Your task to perform on an android device: Do I have any events today? Image 0: 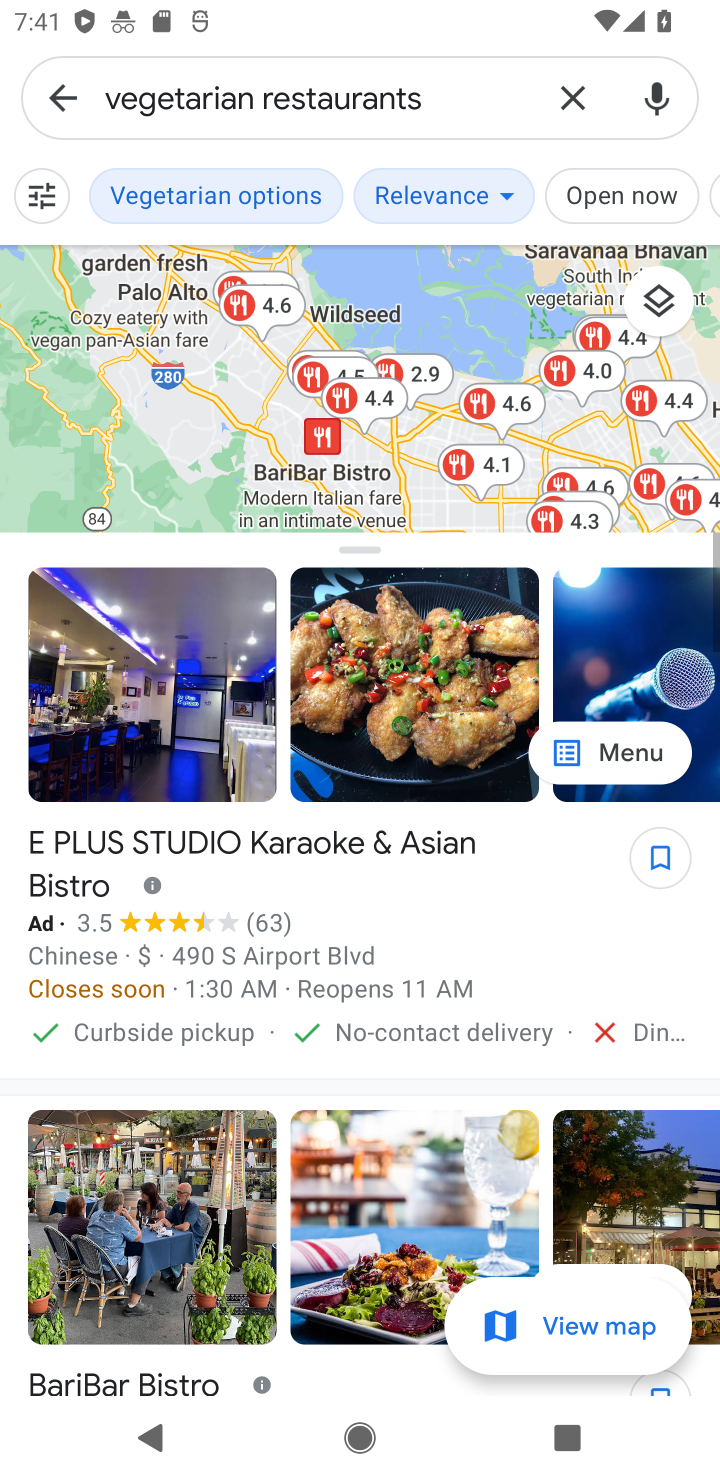
Step 0: press back button
Your task to perform on an android device: Do I have any events today? Image 1: 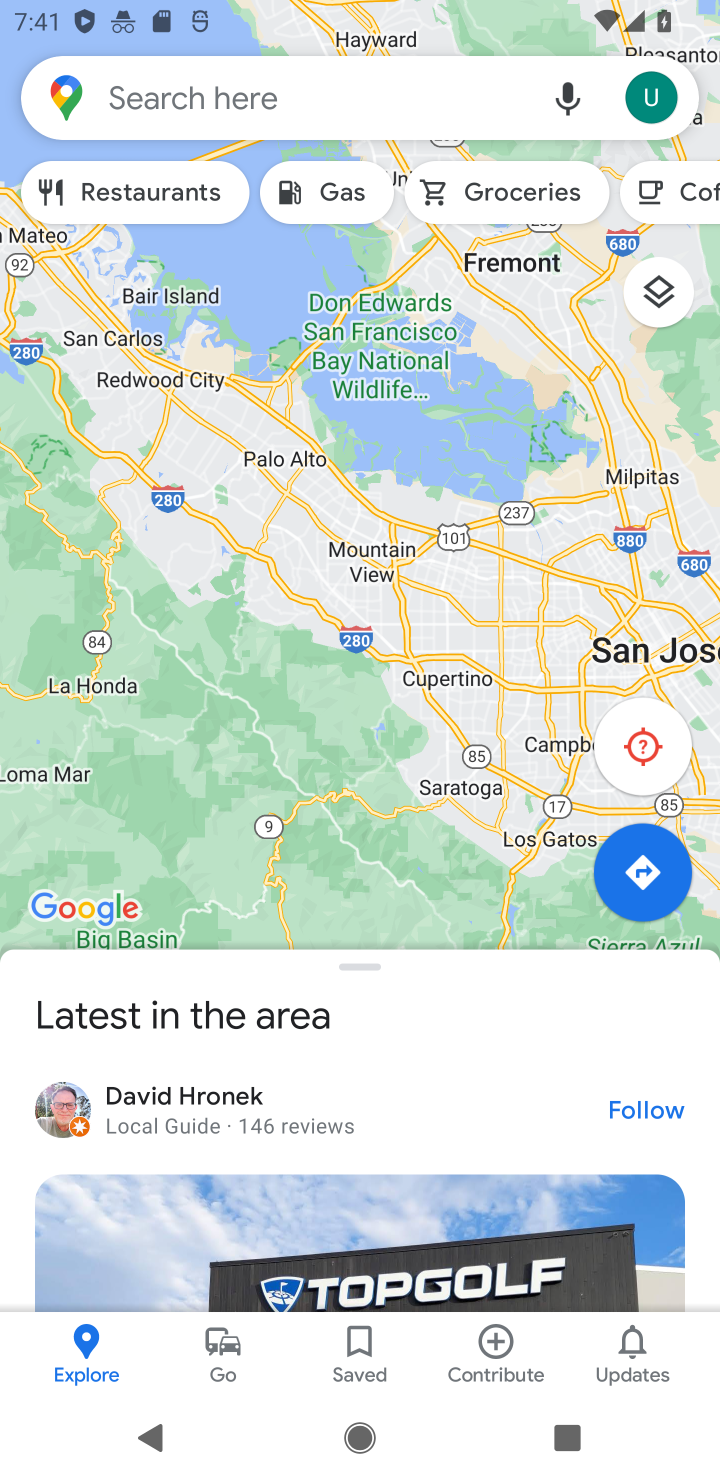
Step 1: press home button
Your task to perform on an android device: Do I have any events today? Image 2: 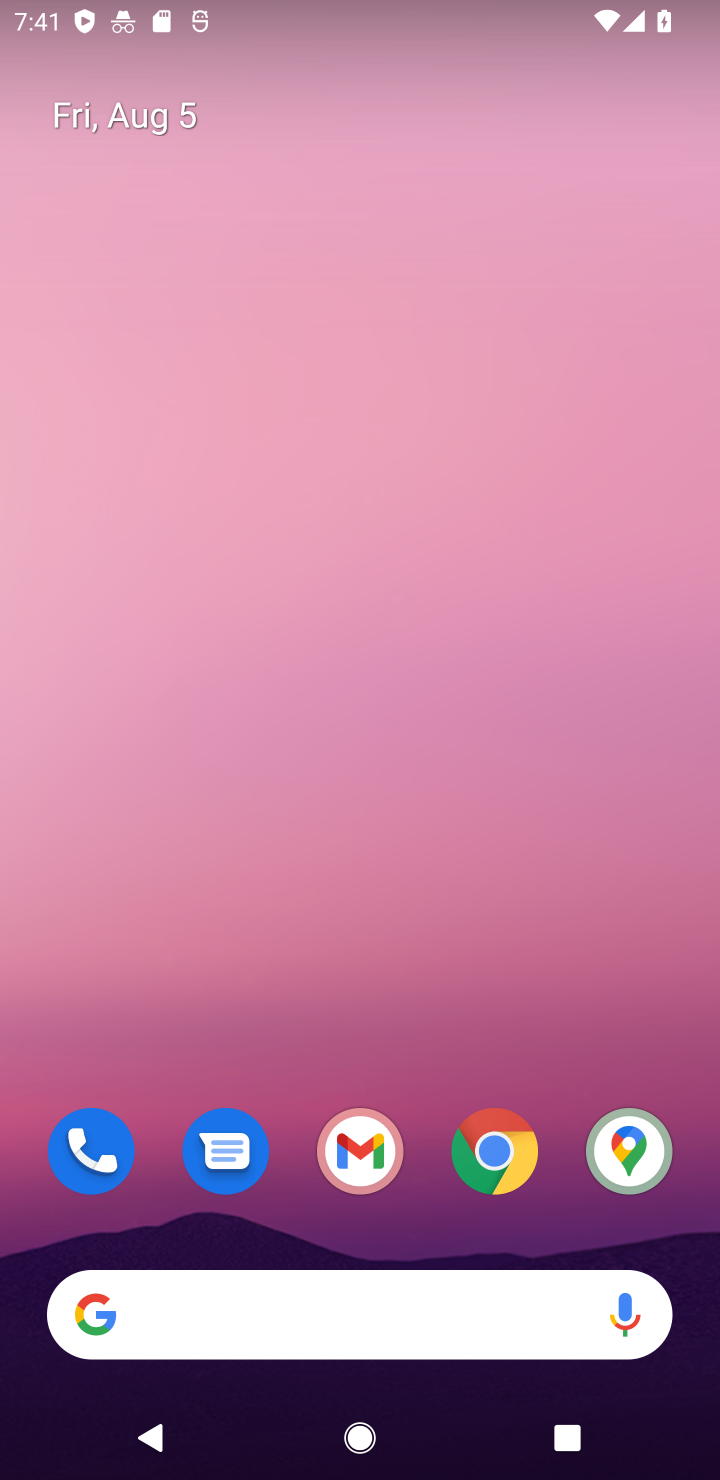
Step 2: drag from (334, 1265) to (303, 287)
Your task to perform on an android device: Do I have any events today? Image 3: 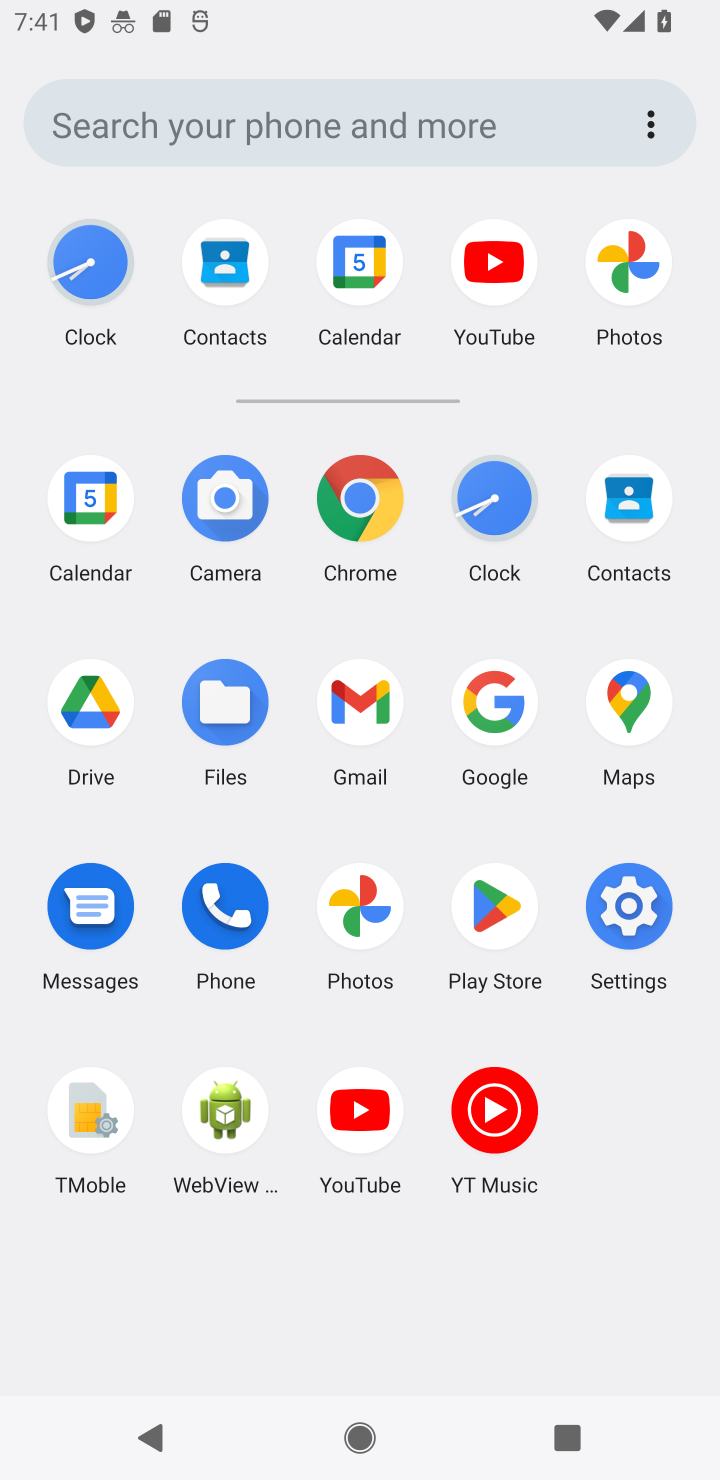
Step 3: click (93, 509)
Your task to perform on an android device: Do I have any events today? Image 4: 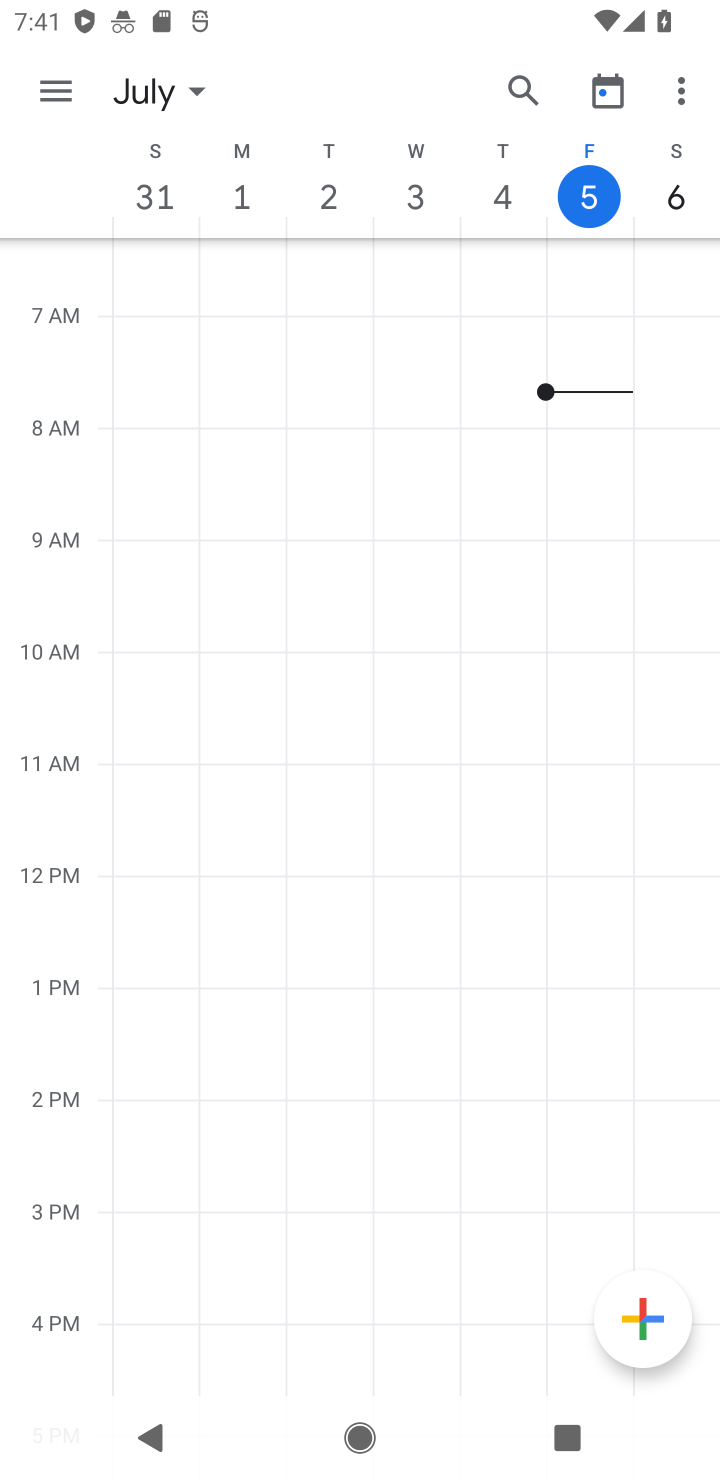
Step 4: click (607, 199)
Your task to perform on an android device: Do I have any events today? Image 5: 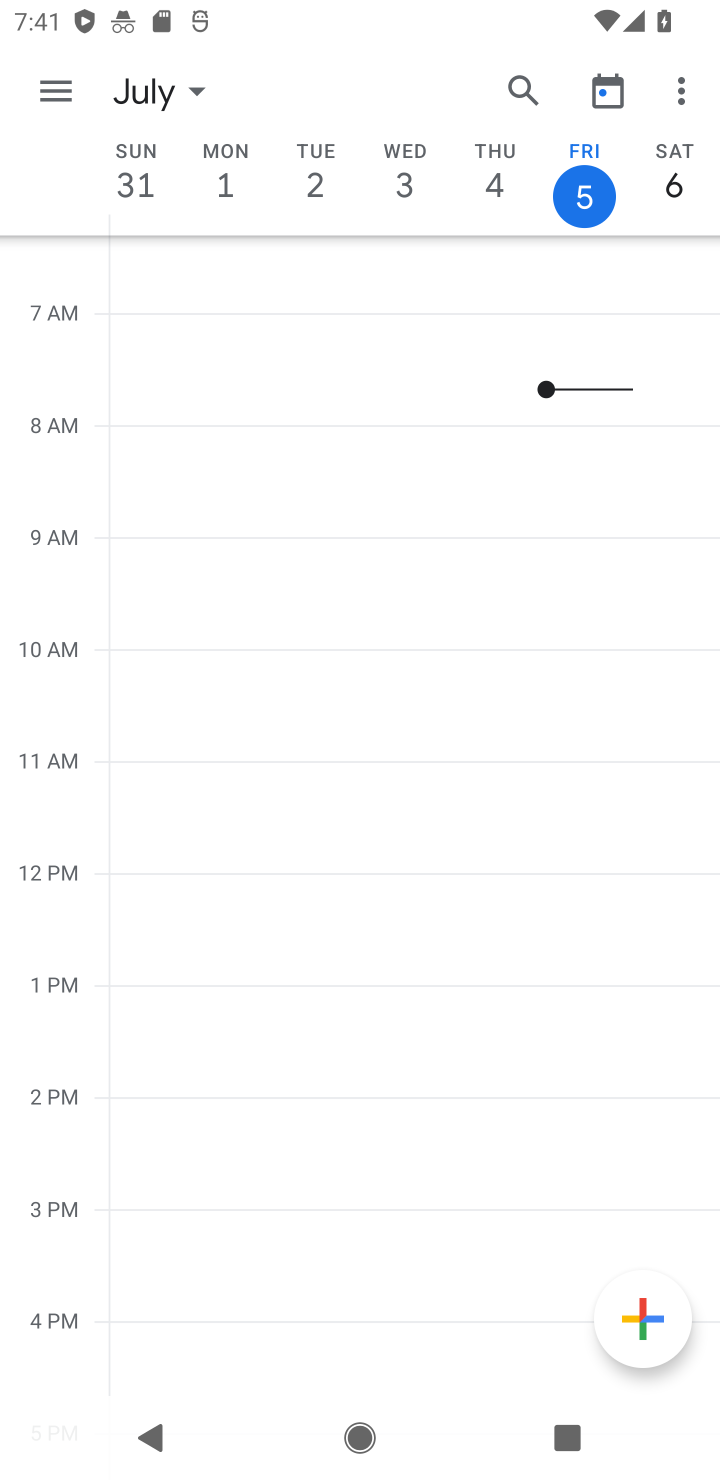
Step 5: task complete